Your task to perform on an android device: turn off location Image 0: 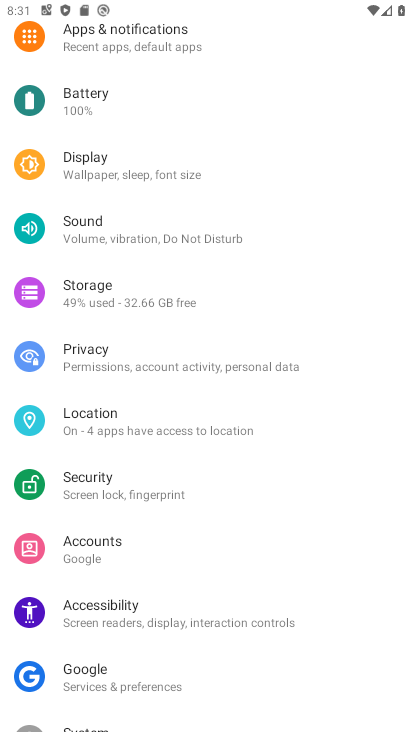
Step 0: drag from (163, 179) to (158, 234)
Your task to perform on an android device: turn off location Image 1: 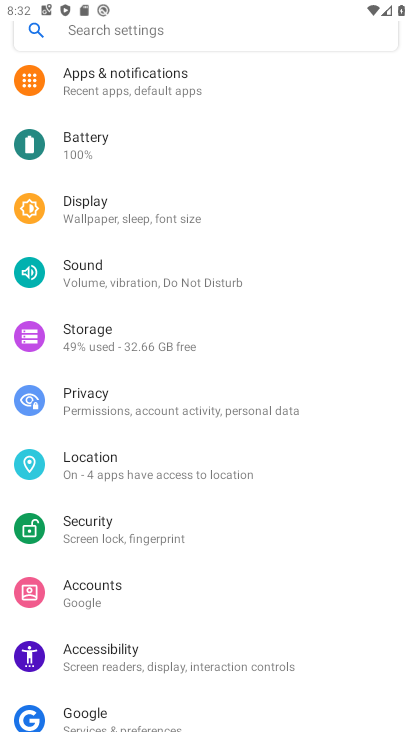
Step 1: click (119, 451)
Your task to perform on an android device: turn off location Image 2: 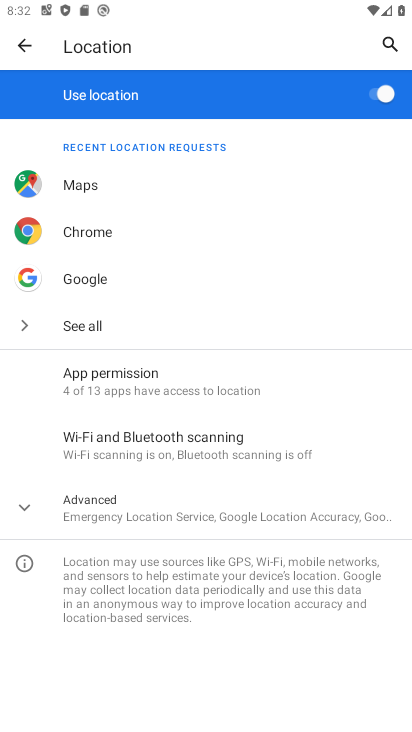
Step 2: click (372, 106)
Your task to perform on an android device: turn off location Image 3: 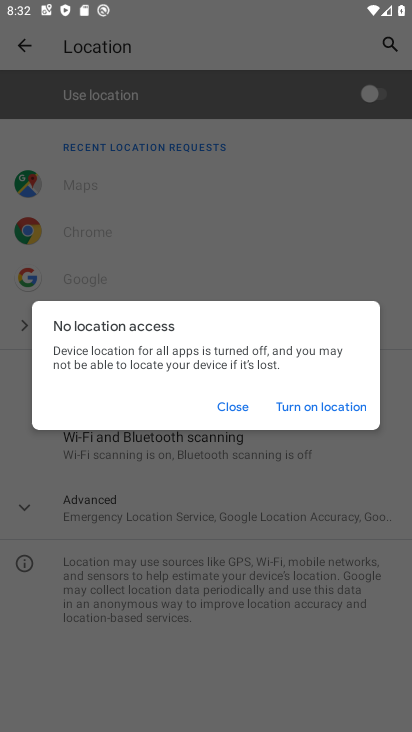
Step 3: click (224, 411)
Your task to perform on an android device: turn off location Image 4: 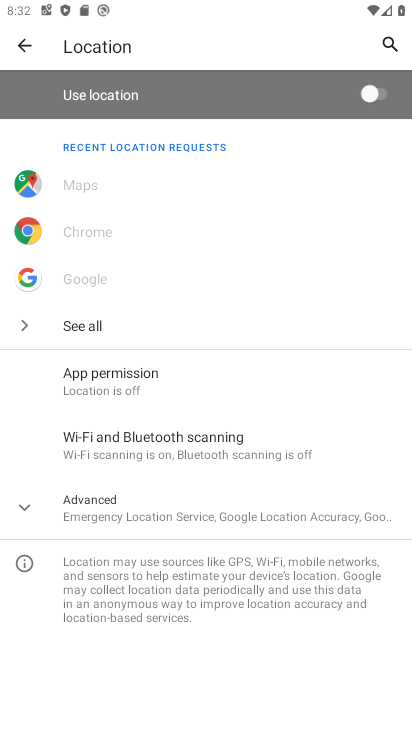
Step 4: task complete